Your task to perform on an android device: Open Google Maps Image 0: 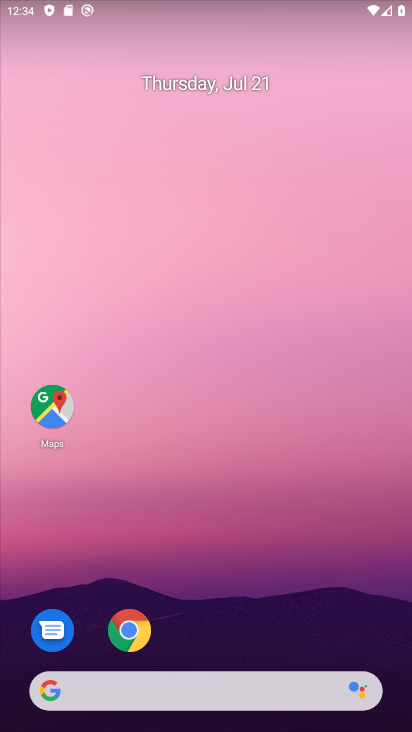
Step 0: click (46, 425)
Your task to perform on an android device: Open Google Maps Image 1: 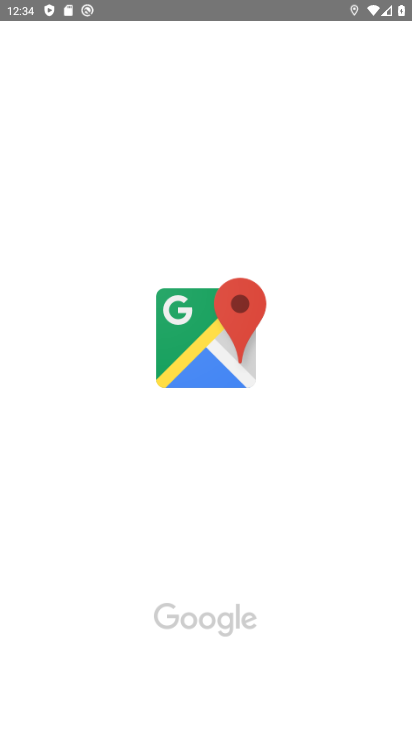
Step 1: task complete